Your task to perform on an android device: Go to internet settings Image 0: 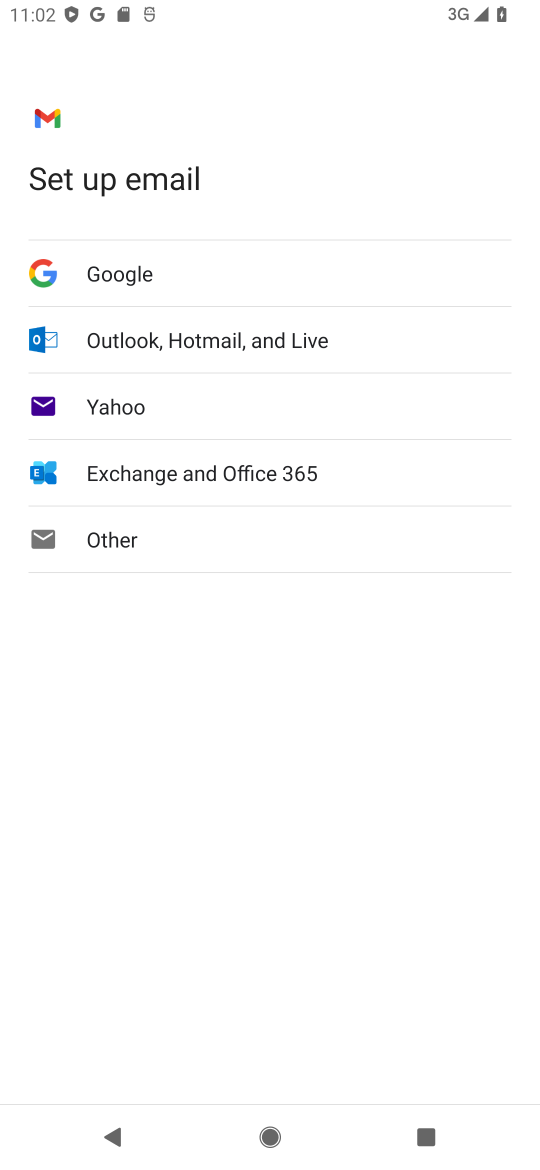
Step 0: press home button
Your task to perform on an android device: Go to internet settings Image 1: 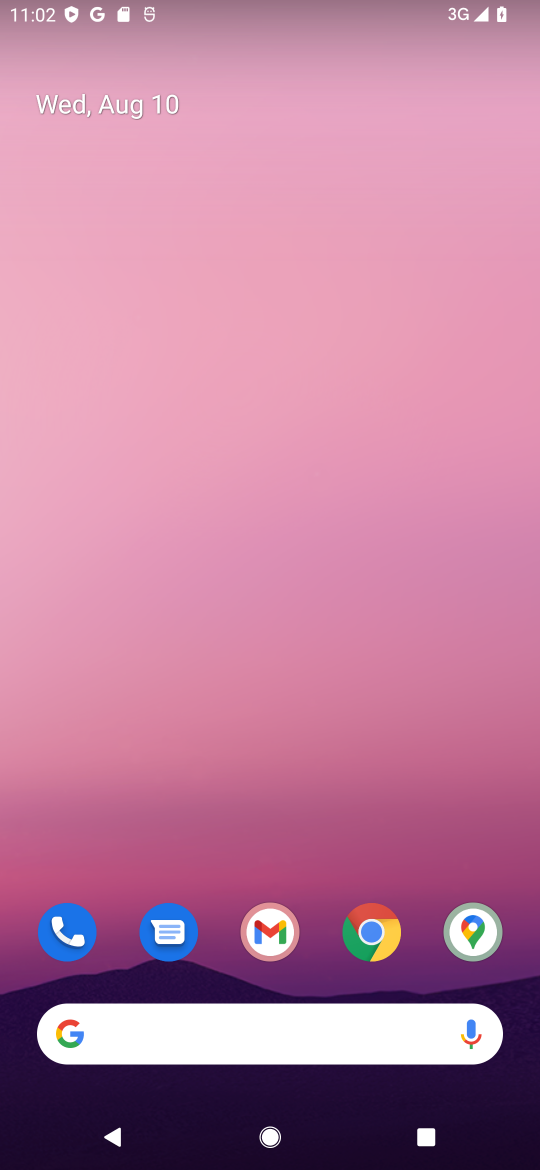
Step 1: click (272, 200)
Your task to perform on an android device: Go to internet settings Image 2: 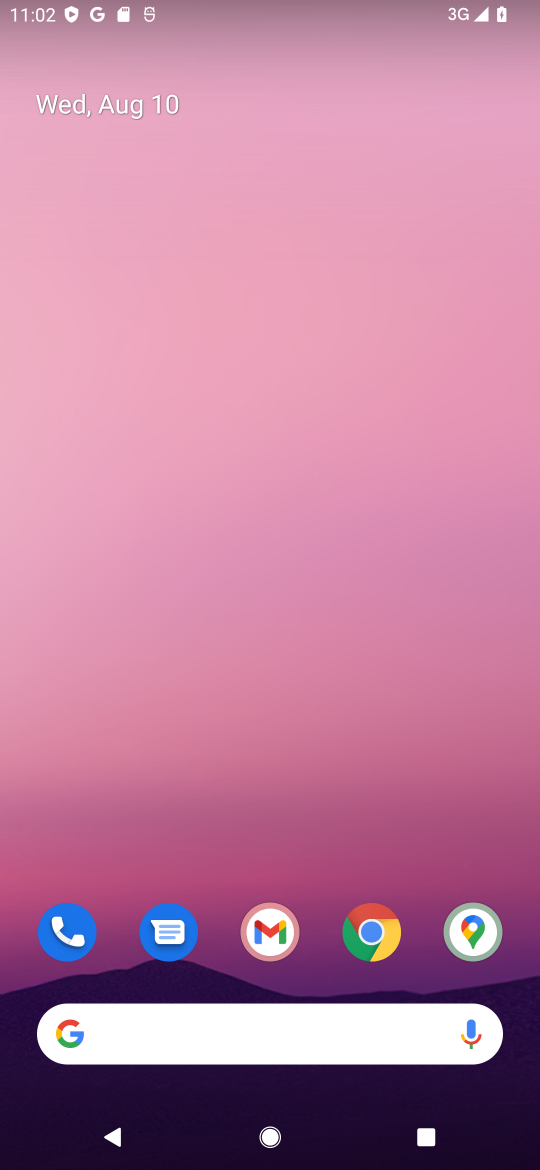
Step 2: drag from (233, 970) to (145, 129)
Your task to perform on an android device: Go to internet settings Image 3: 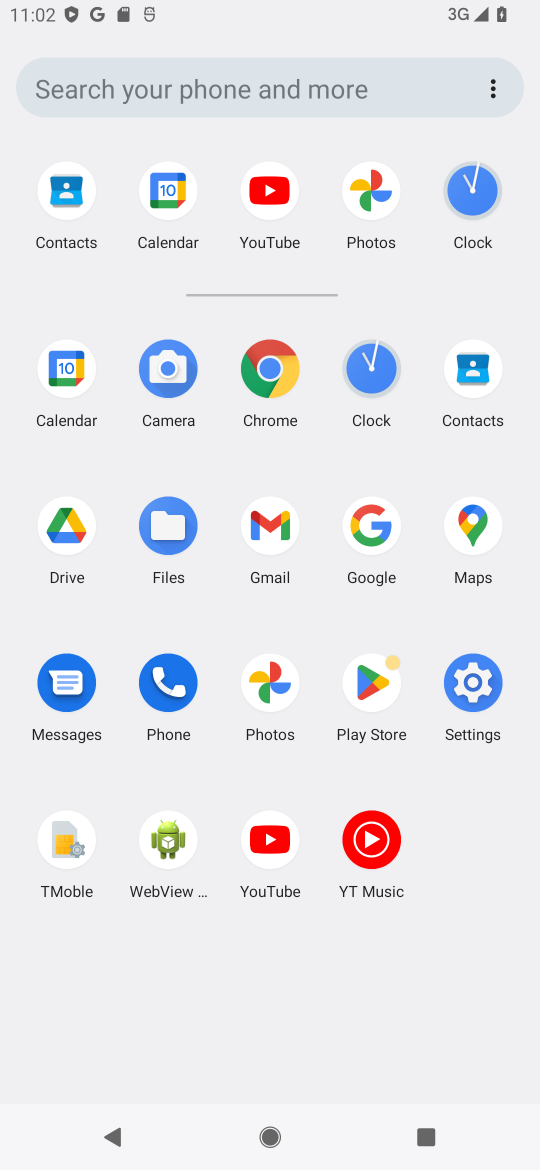
Step 3: click (480, 686)
Your task to perform on an android device: Go to internet settings Image 4: 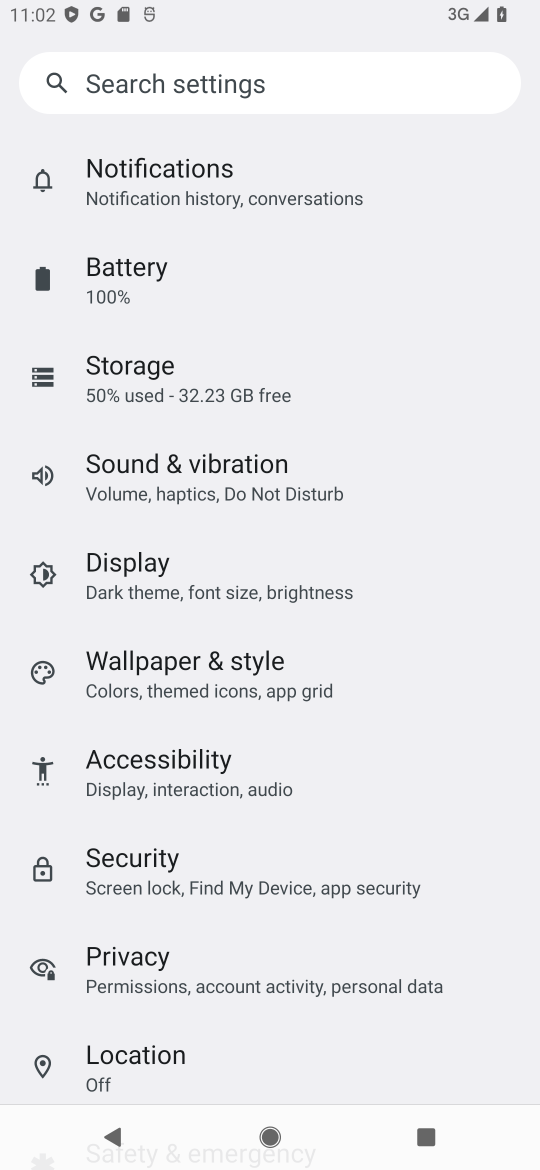
Step 4: drag from (438, 267) to (505, 959)
Your task to perform on an android device: Go to internet settings Image 5: 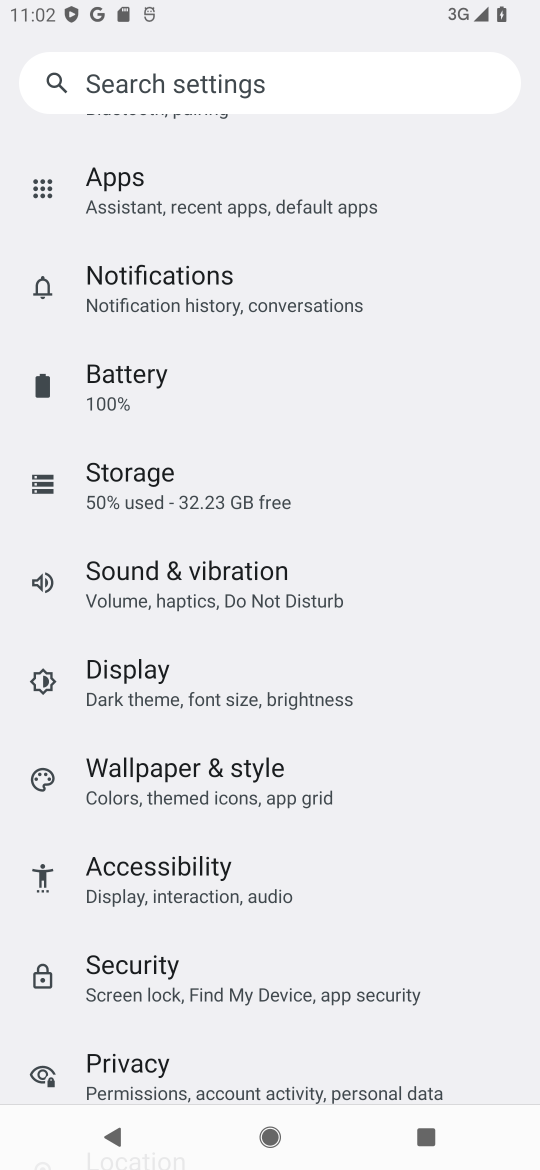
Step 5: drag from (290, 373) to (522, 1167)
Your task to perform on an android device: Go to internet settings Image 6: 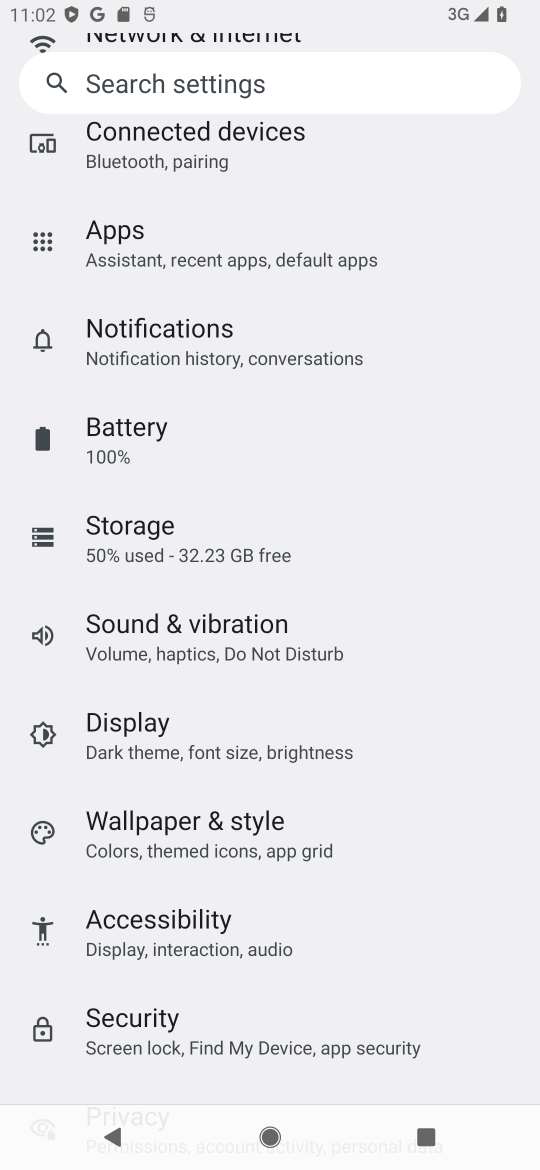
Step 6: drag from (312, 204) to (259, 1161)
Your task to perform on an android device: Go to internet settings Image 7: 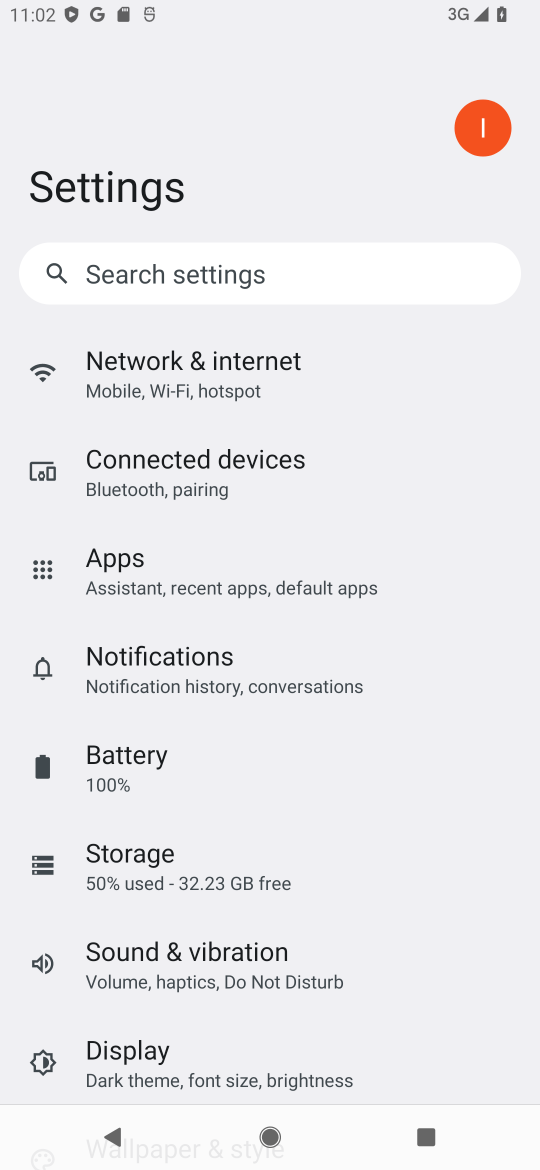
Step 7: click (197, 354)
Your task to perform on an android device: Go to internet settings Image 8: 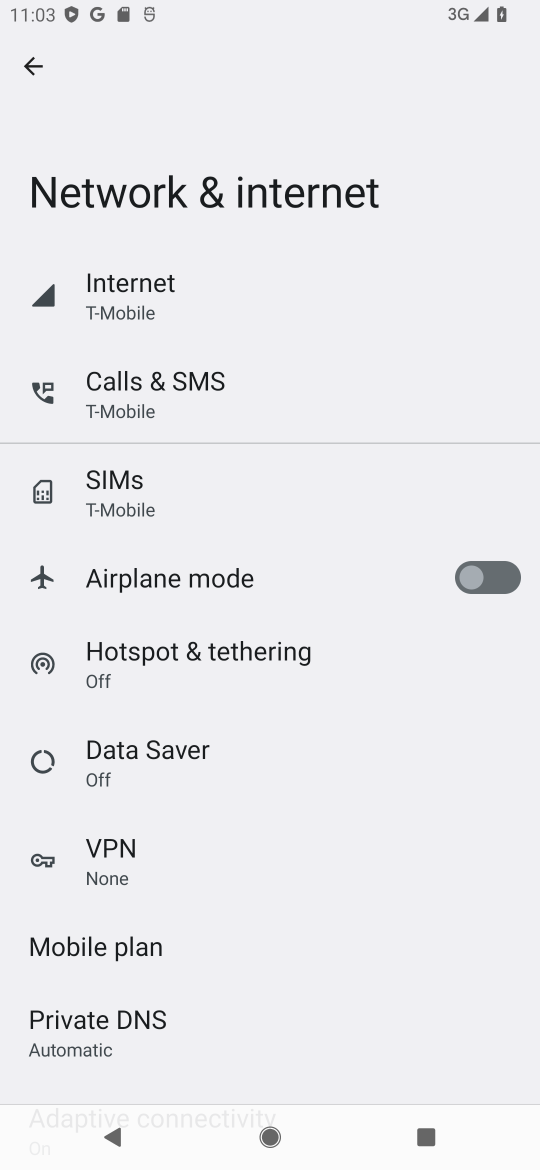
Step 8: task complete